Your task to perform on an android device: Clear the shopping cart on newegg. Add "usb-c to usb-b" to the cart on newegg, then select checkout. Image 0: 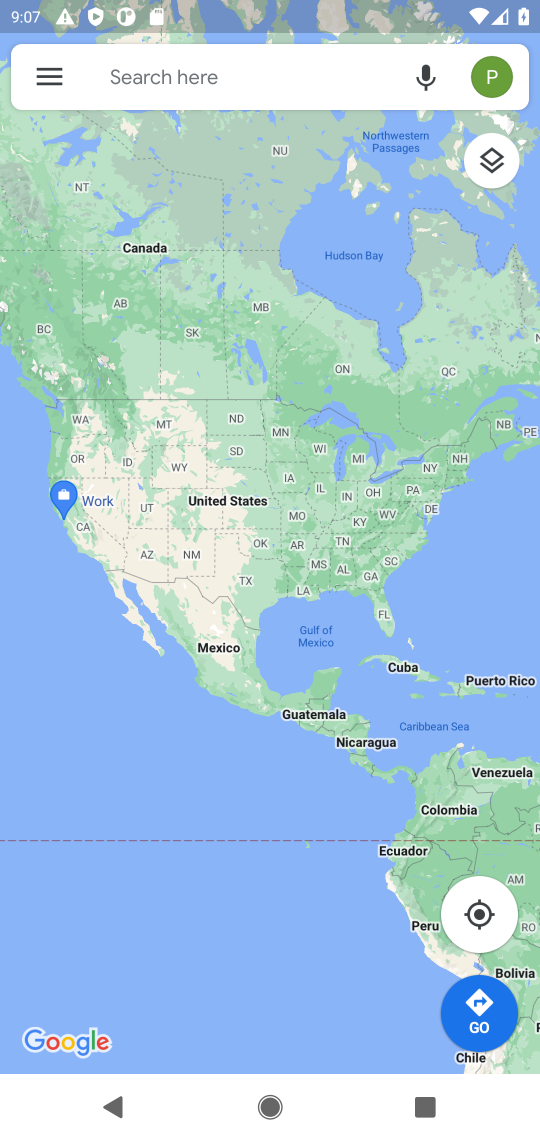
Step 0: press home button
Your task to perform on an android device: Clear the shopping cart on newegg. Add "usb-c to usb-b" to the cart on newegg, then select checkout. Image 1: 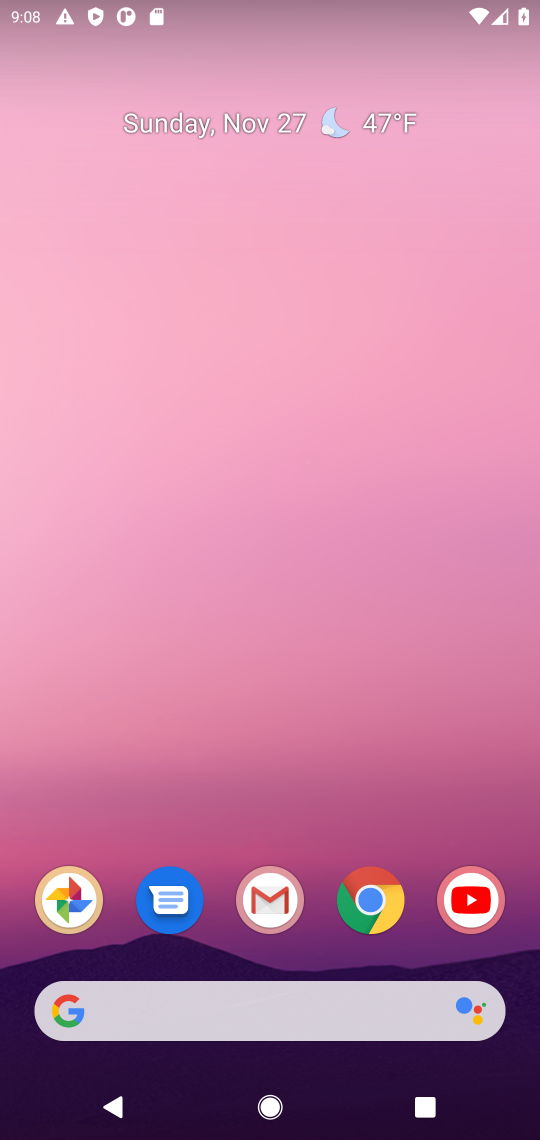
Step 1: click (369, 906)
Your task to perform on an android device: Clear the shopping cart on newegg. Add "usb-c to usb-b" to the cart on newegg, then select checkout. Image 2: 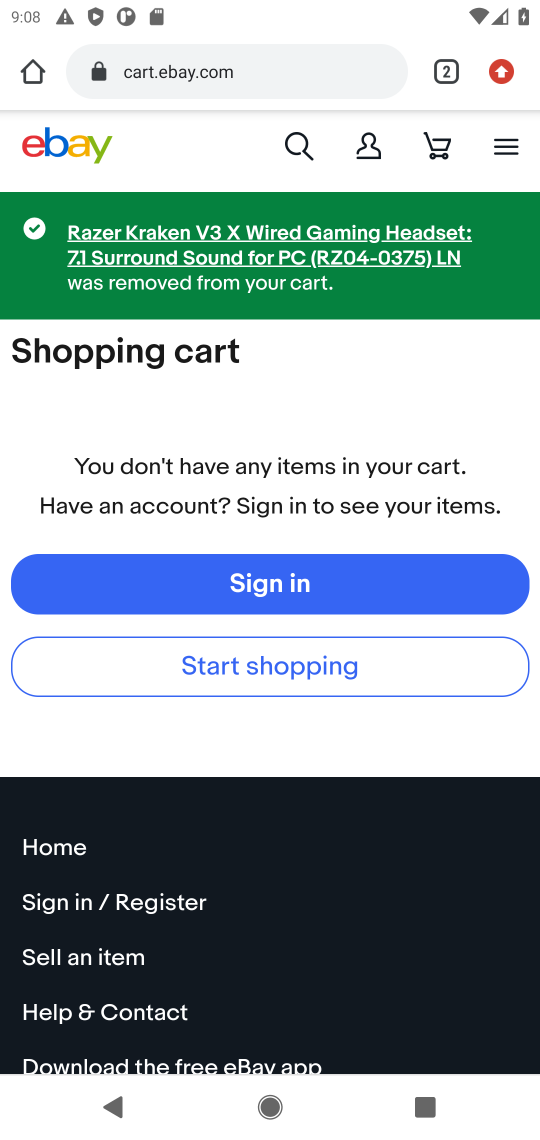
Step 2: click (209, 78)
Your task to perform on an android device: Clear the shopping cart on newegg. Add "usb-c to usb-b" to the cart on newegg, then select checkout. Image 3: 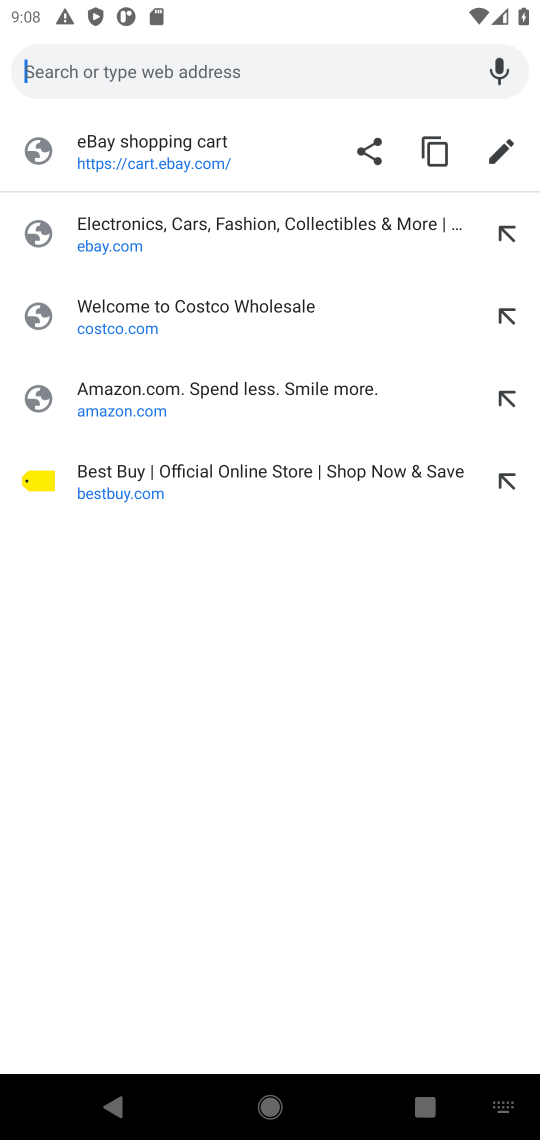
Step 3: type "newegg.com"
Your task to perform on an android device: Clear the shopping cart on newegg. Add "usb-c to usb-b" to the cart on newegg, then select checkout. Image 4: 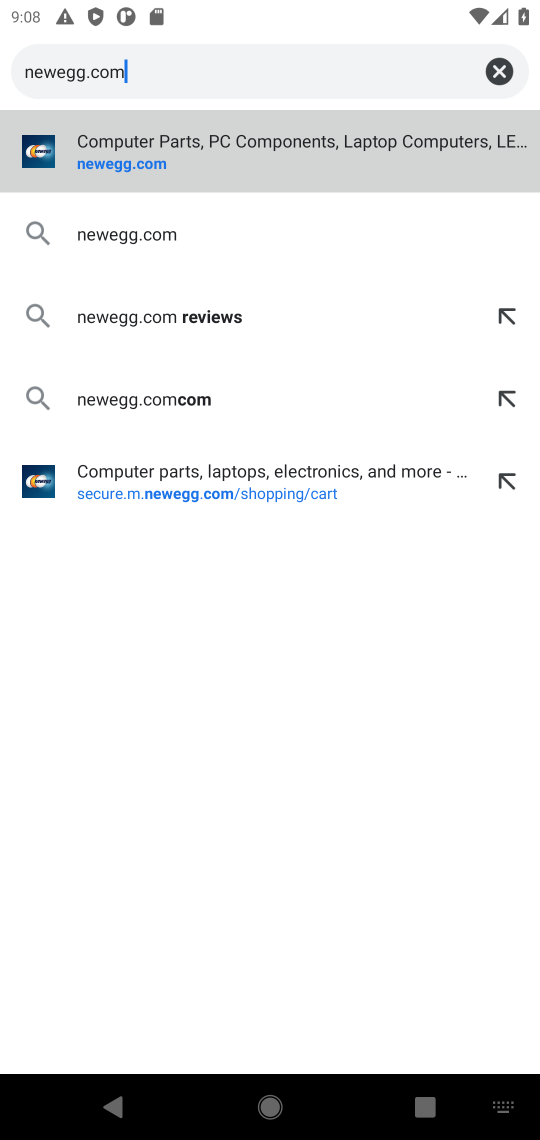
Step 4: click (117, 175)
Your task to perform on an android device: Clear the shopping cart on newegg. Add "usb-c to usb-b" to the cart on newegg, then select checkout. Image 5: 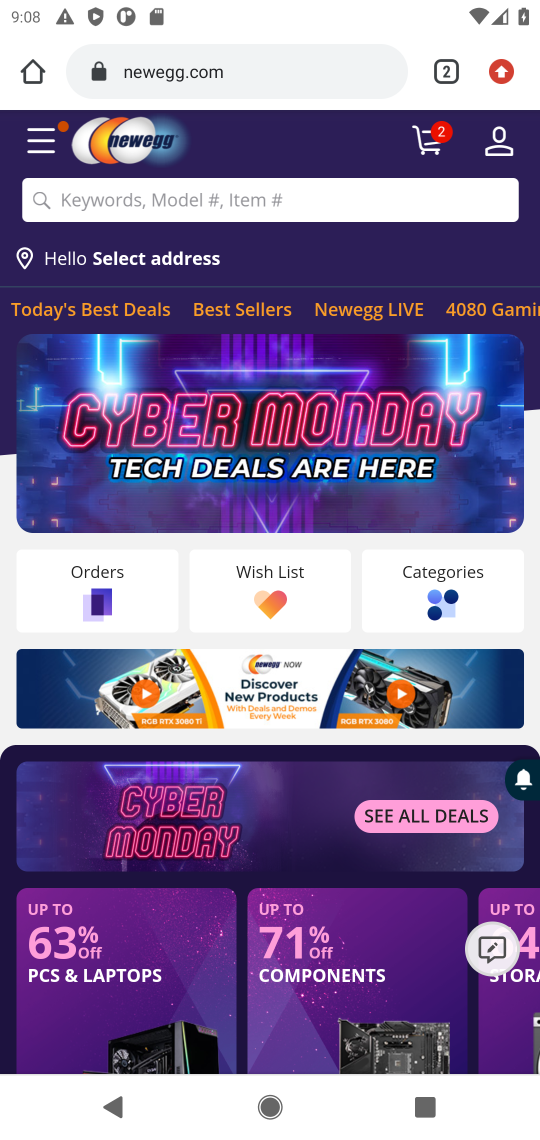
Step 5: click (430, 141)
Your task to perform on an android device: Clear the shopping cart on newegg. Add "usb-c to usb-b" to the cart on newegg, then select checkout. Image 6: 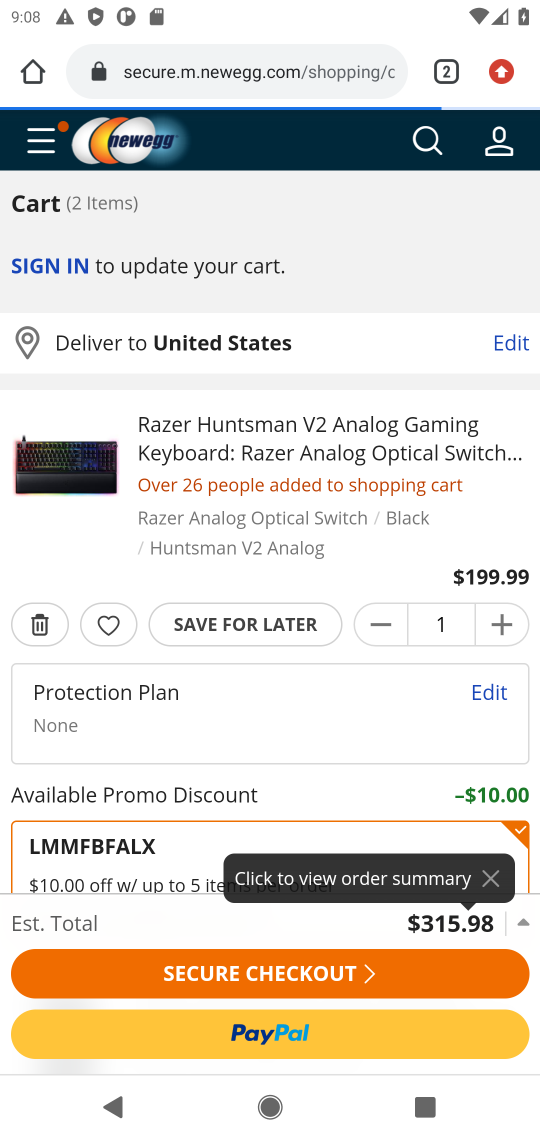
Step 6: click (26, 632)
Your task to perform on an android device: Clear the shopping cart on newegg. Add "usb-c to usb-b" to the cart on newegg, then select checkout. Image 7: 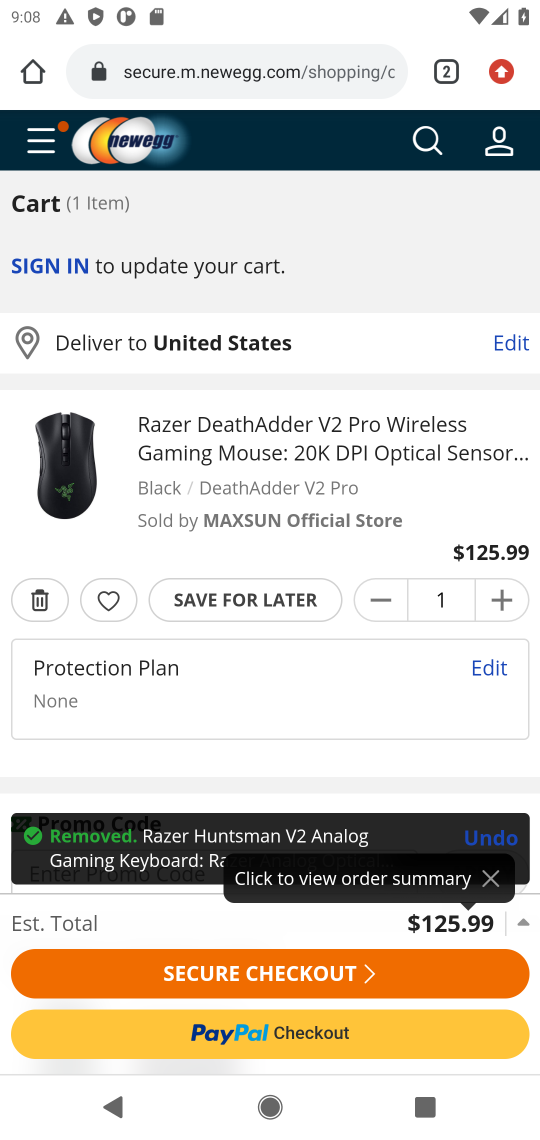
Step 7: click (47, 599)
Your task to perform on an android device: Clear the shopping cart on newegg. Add "usb-c to usb-b" to the cart on newegg, then select checkout. Image 8: 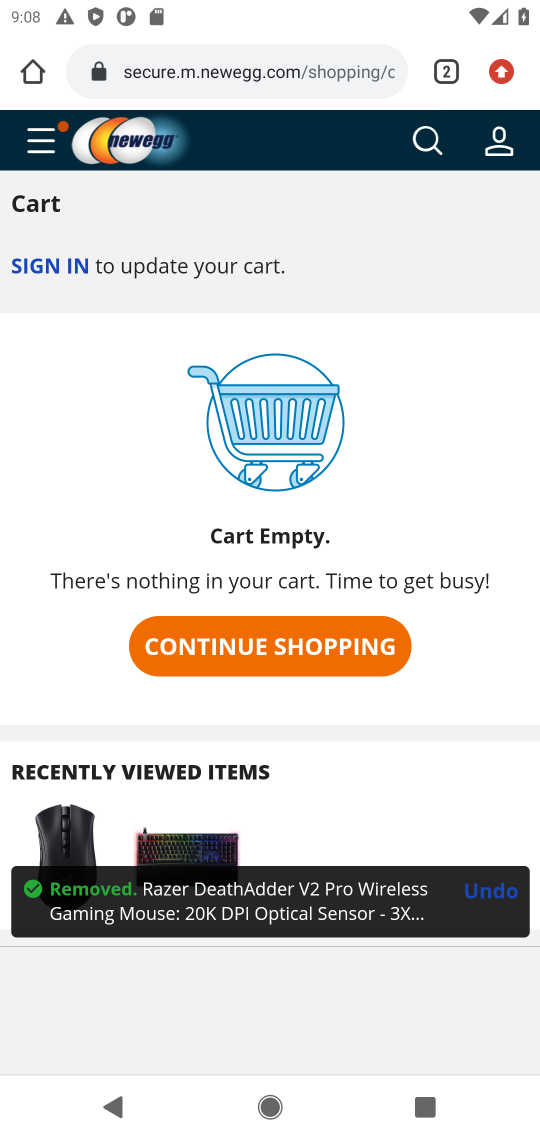
Step 8: click (274, 657)
Your task to perform on an android device: Clear the shopping cart on newegg. Add "usb-c to usb-b" to the cart on newegg, then select checkout. Image 9: 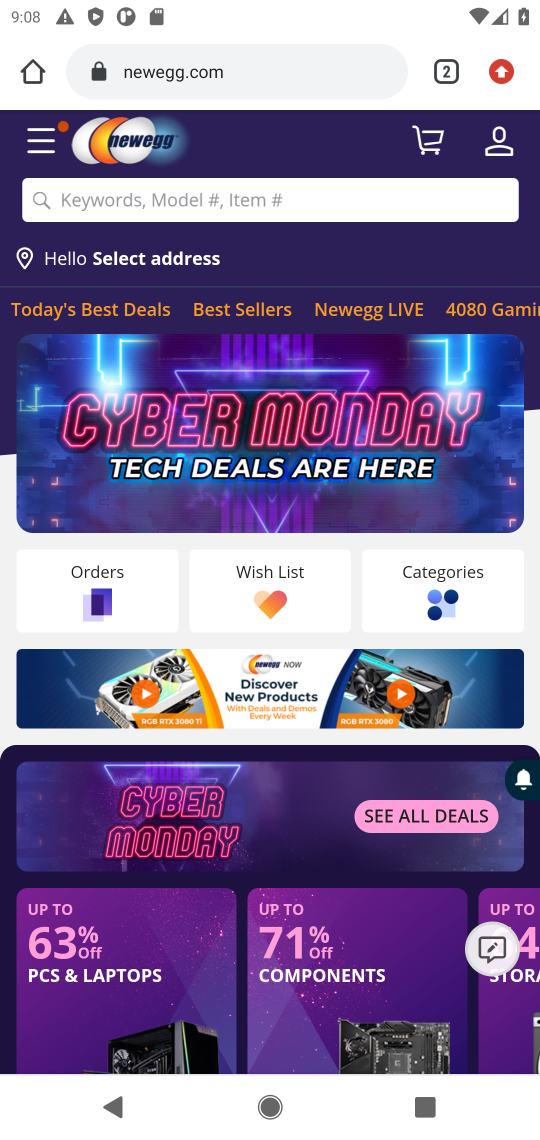
Step 9: click (295, 205)
Your task to perform on an android device: Clear the shopping cart on newegg. Add "usb-c to usb-b" to the cart on newegg, then select checkout. Image 10: 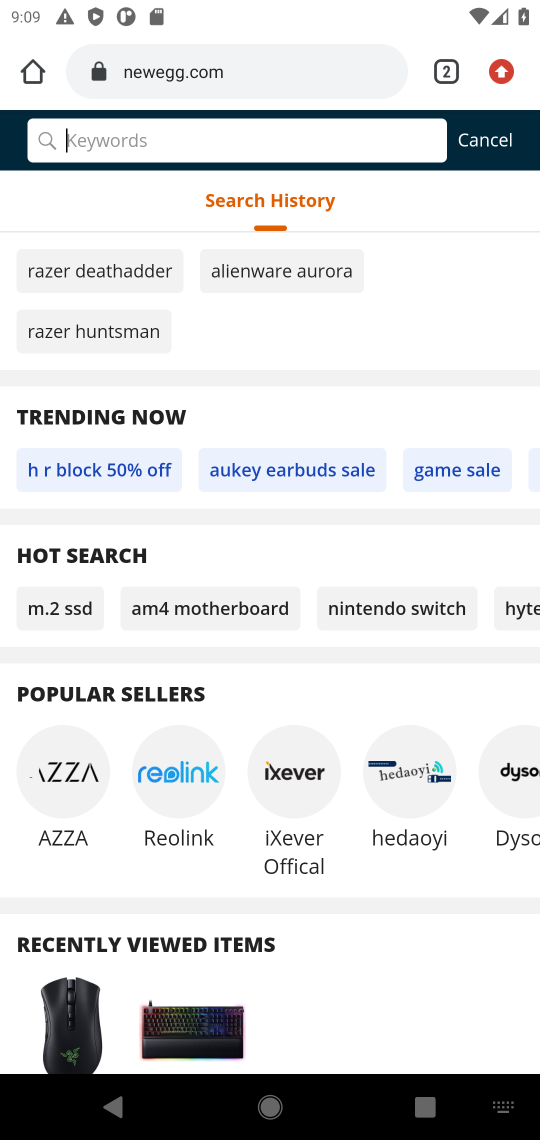
Step 10: type "usb-c to usb-b"
Your task to perform on an android device: Clear the shopping cart on newegg. Add "usb-c to usb-b" to the cart on newegg, then select checkout. Image 11: 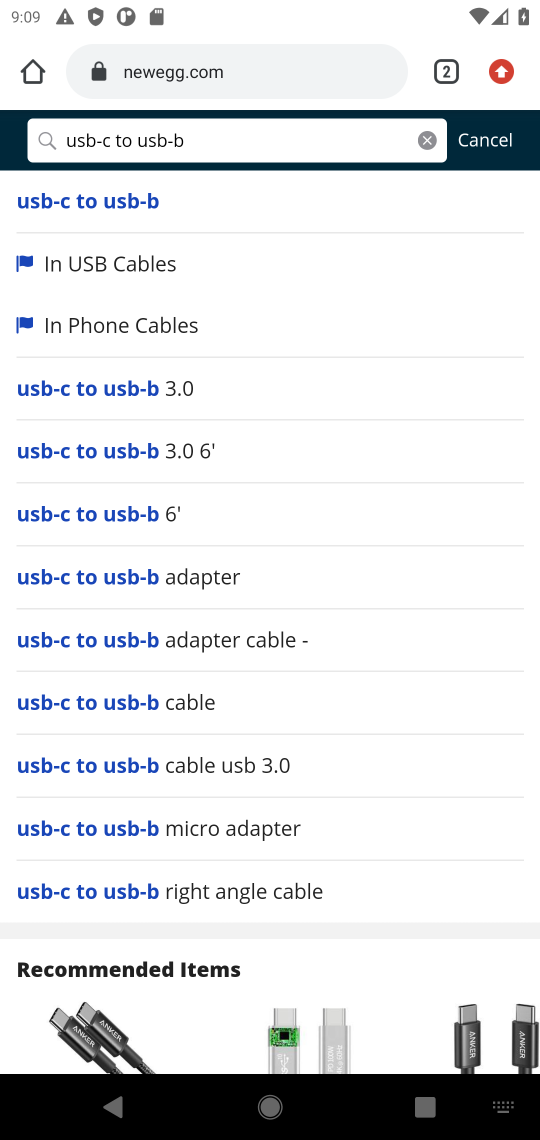
Step 11: click (120, 205)
Your task to perform on an android device: Clear the shopping cart on newegg. Add "usb-c to usb-b" to the cart on newegg, then select checkout. Image 12: 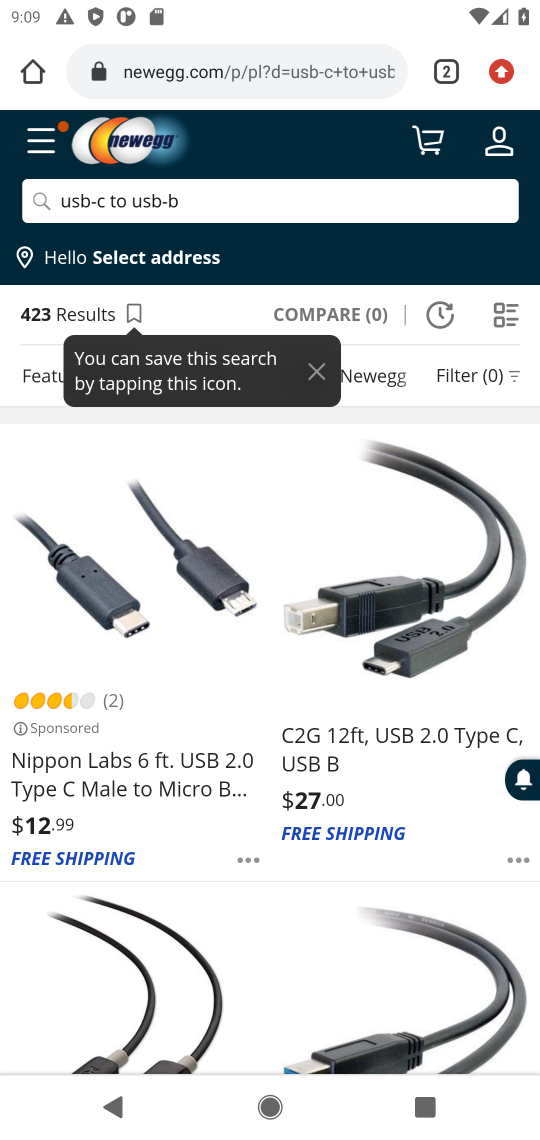
Step 12: click (418, 630)
Your task to perform on an android device: Clear the shopping cart on newegg. Add "usb-c to usb-b" to the cart on newegg, then select checkout. Image 13: 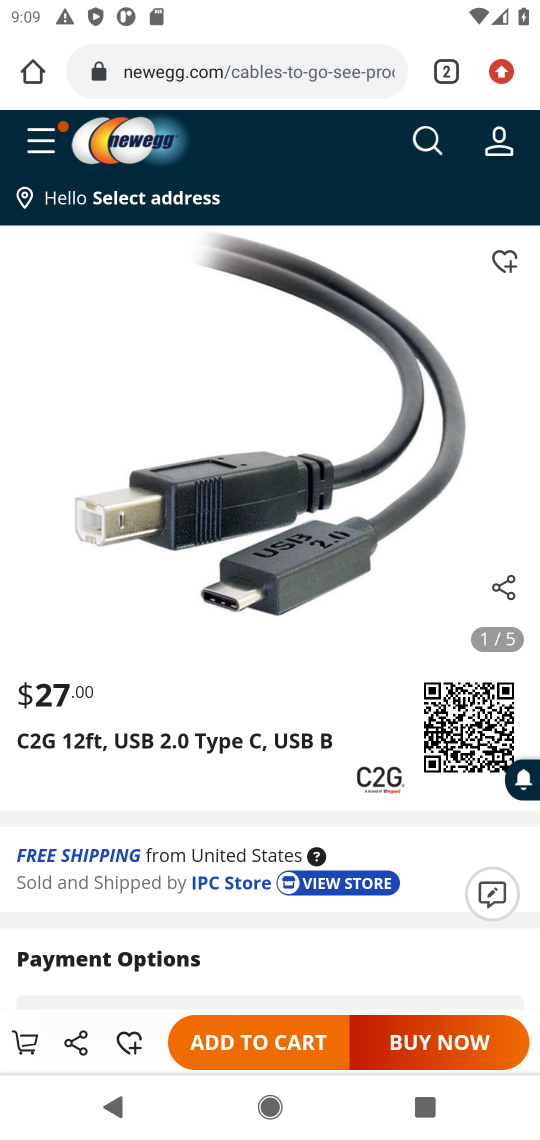
Step 13: click (260, 1044)
Your task to perform on an android device: Clear the shopping cart on newegg. Add "usb-c to usb-b" to the cart on newegg, then select checkout. Image 14: 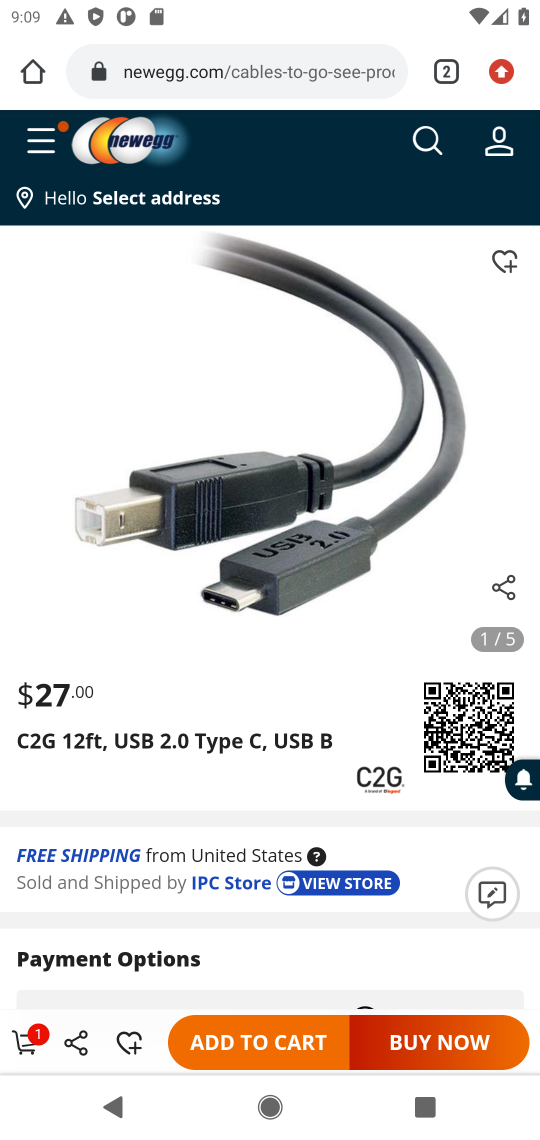
Step 14: click (29, 1039)
Your task to perform on an android device: Clear the shopping cart on newegg. Add "usb-c to usb-b" to the cart on newegg, then select checkout. Image 15: 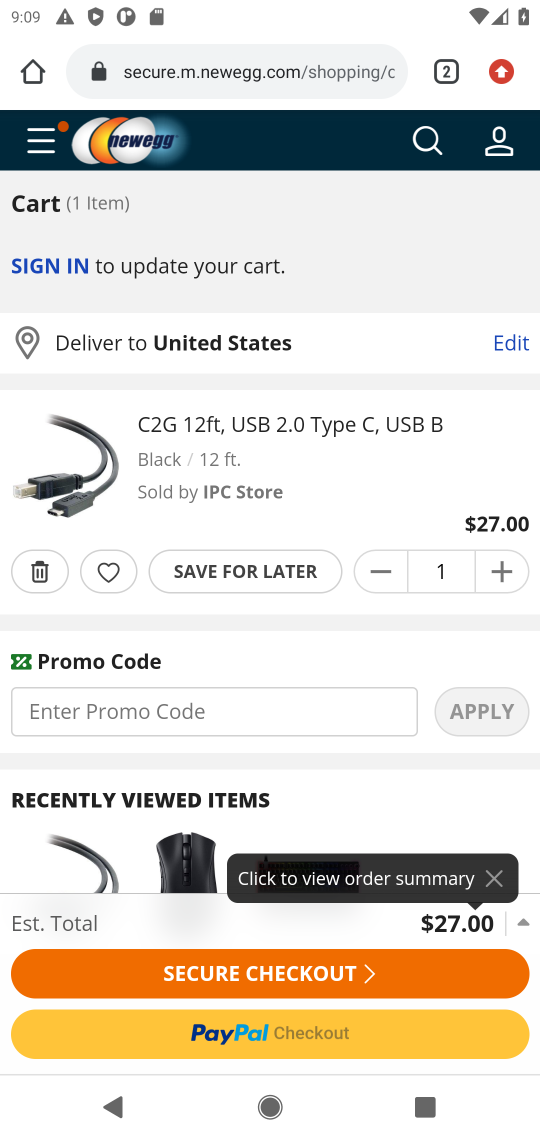
Step 15: click (289, 850)
Your task to perform on an android device: Clear the shopping cart on newegg. Add "usb-c to usb-b" to the cart on newegg, then select checkout. Image 16: 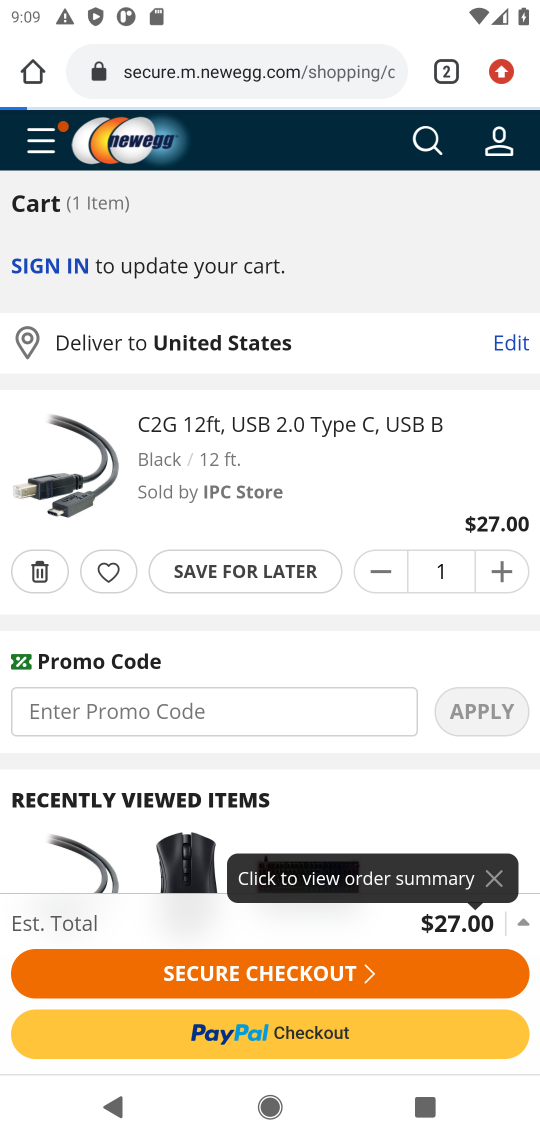
Step 16: click (278, 993)
Your task to perform on an android device: Clear the shopping cart on newegg. Add "usb-c to usb-b" to the cart on newegg, then select checkout. Image 17: 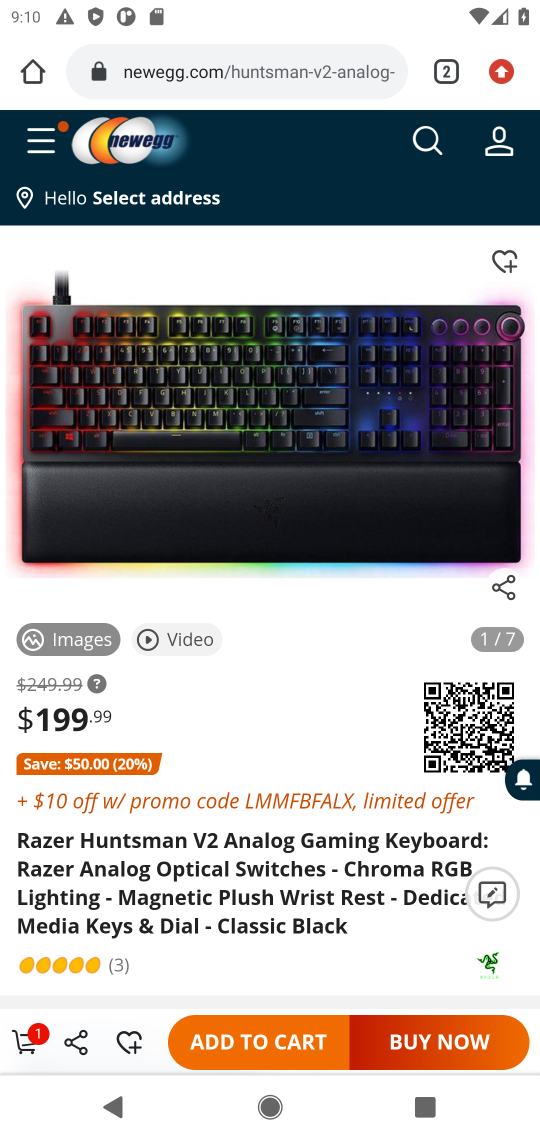
Step 17: click (38, 1044)
Your task to perform on an android device: Clear the shopping cart on newegg. Add "usb-c to usb-b" to the cart on newegg, then select checkout. Image 18: 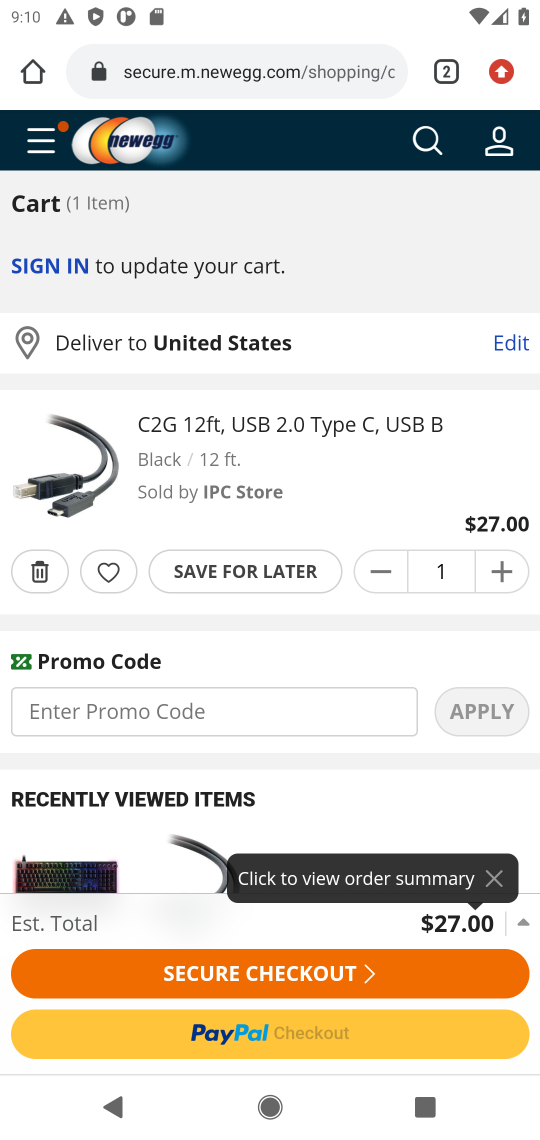
Step 18: click (244, 855)
Your task to perform on an android device: Clear the shopping cart on newegg. Add "usb-c to usb-b" to the cart on newegg, then select checkout. Image 19: 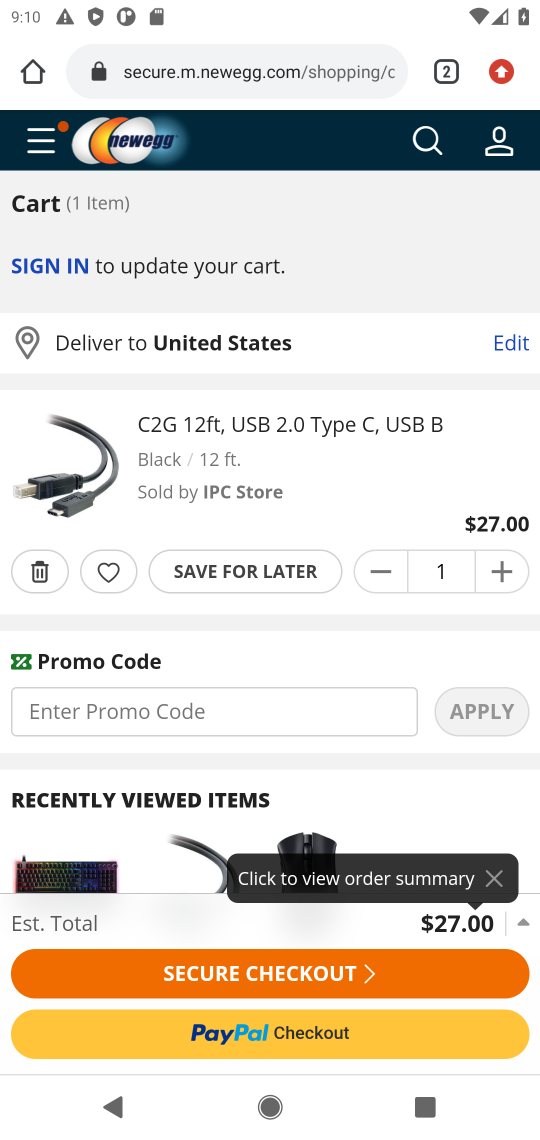
Step 19: click (218, 974)
Your task to perform on an android device: Clear the shopping cart on newegg. Add "usb-c to usb-b" to the cart on newegg, then select checkout. Image 20: 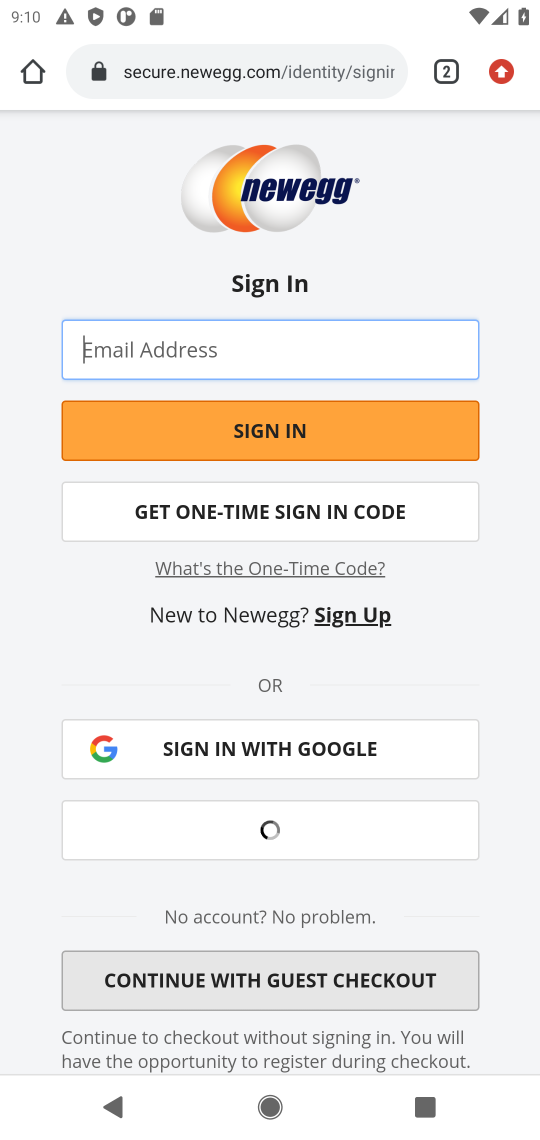
Step 20: task complete